Your task to perform on an android device: Open ESPN.com Image 0: 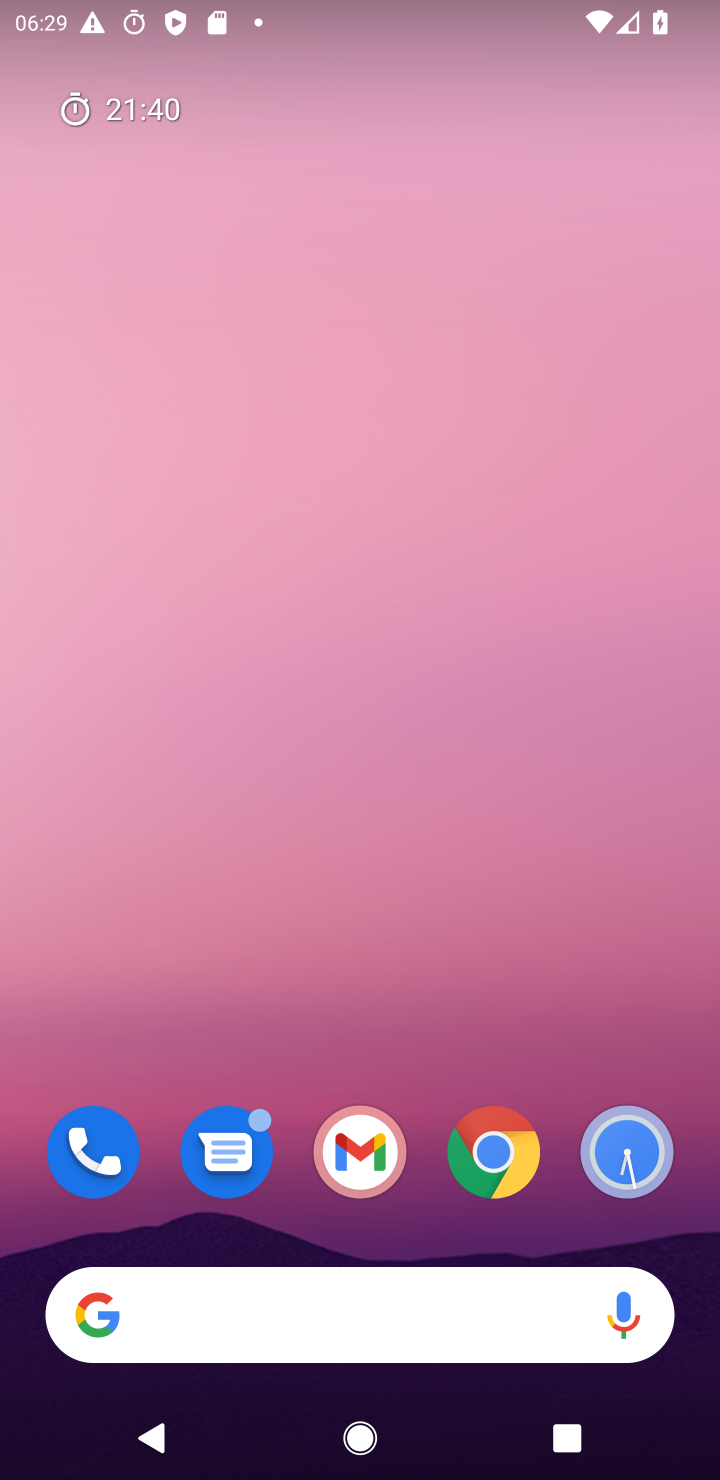
Step 0: drag from (475, 659) to (483, 91)
Your task to perform on an android device: Open ESPN.com Image 1: 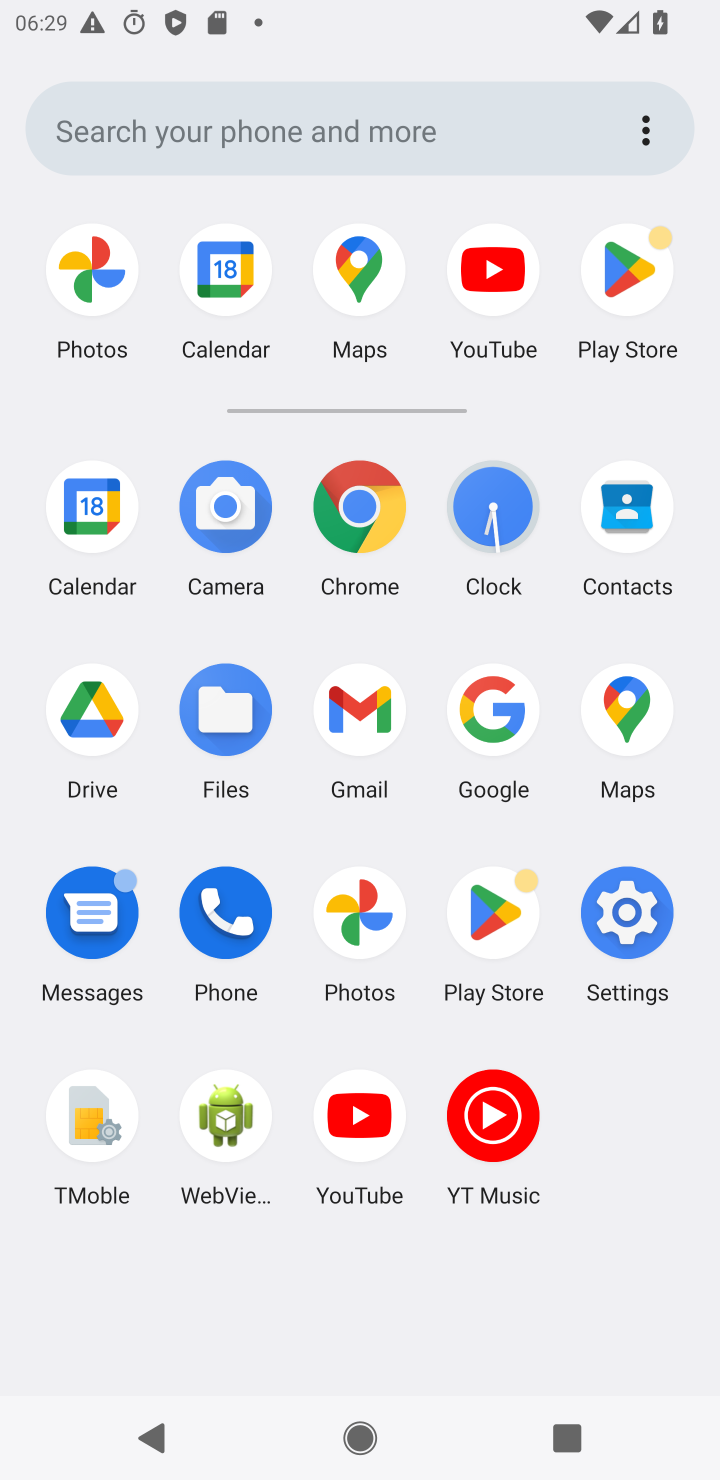
Step 1: click (367, 480)
Your task to perform on an android device: Open ESPN.com Image 2: 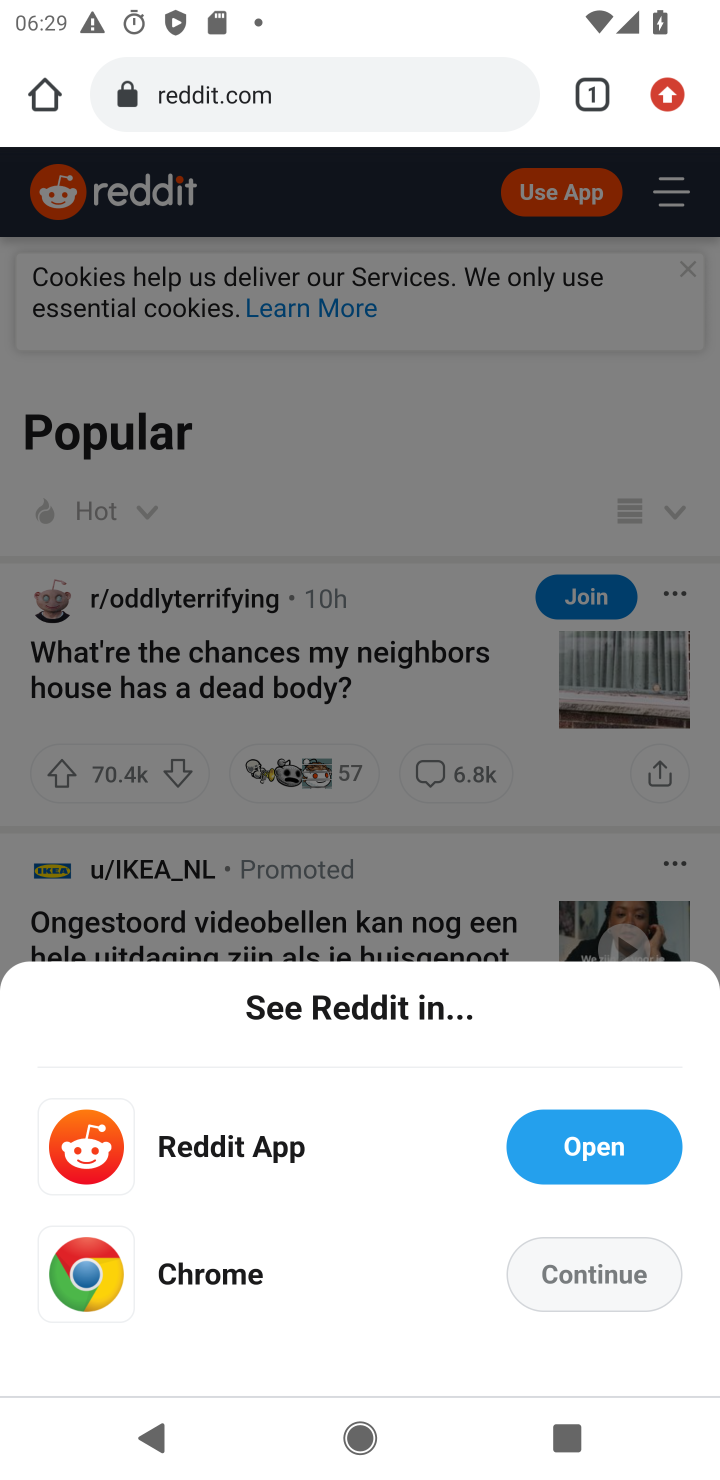
Step 2: task complete